Your task to perform on an android device: When is my next appointment? Image 0: 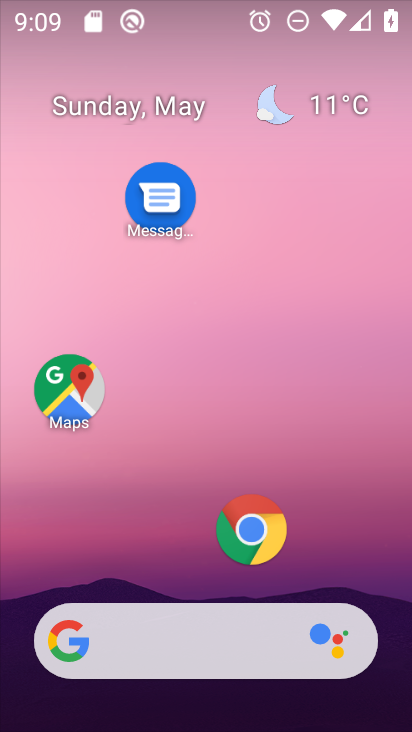
Step 0: press home button
Your task to perform on an android device: When is my next appointment? Image 1: 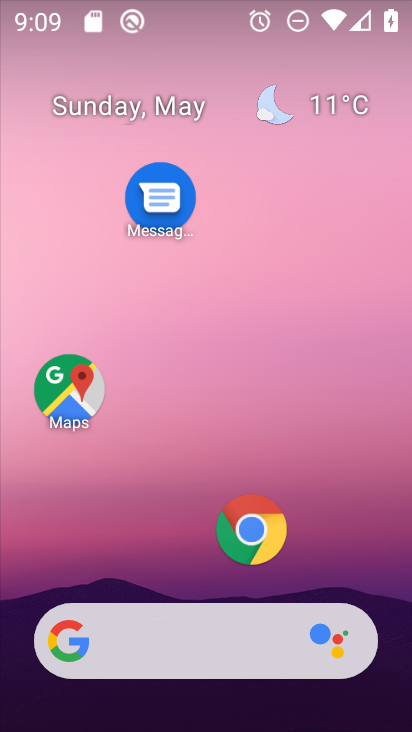
Step 1: drag from (195, 576) to (227, 87)
Your task to perform on an android device: When is my next appointment? Image 2: 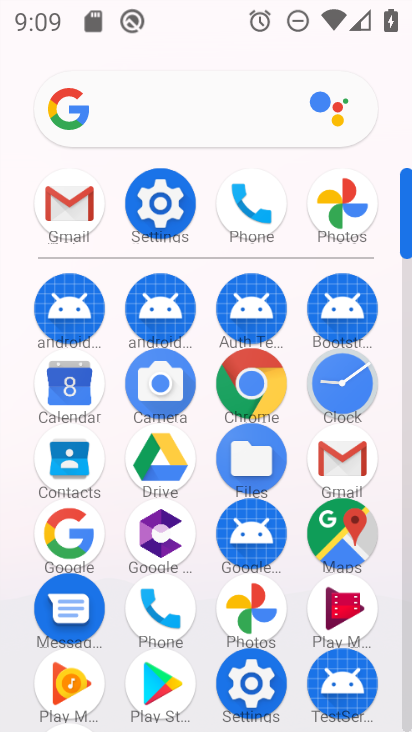
Step 2: click (73, 379)
Your task to perform on an android device: When is my next appointment? Image 3: 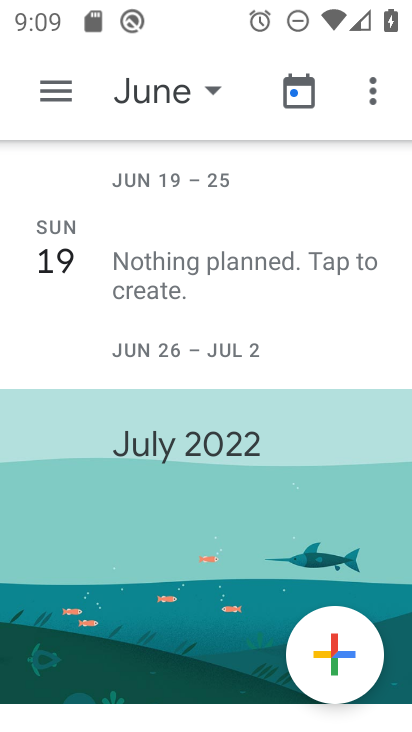
Step 3: click (45, 99)
Your task to perform on an android device: When is my next appointment? Image 4: 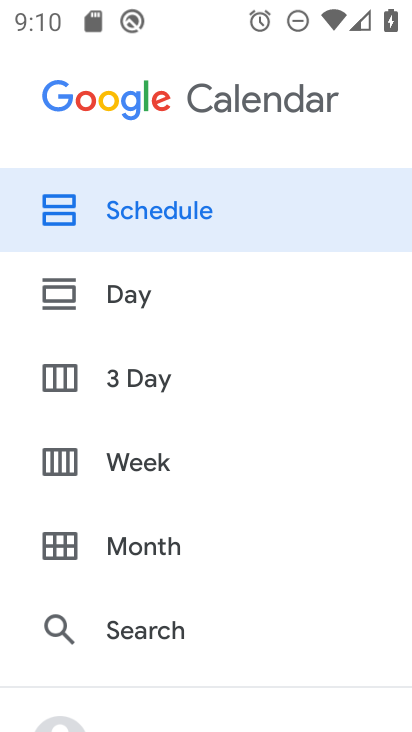
Step 4: click (94, 458)
Your task to perform on an android device: When is my next appointment? Image 5: 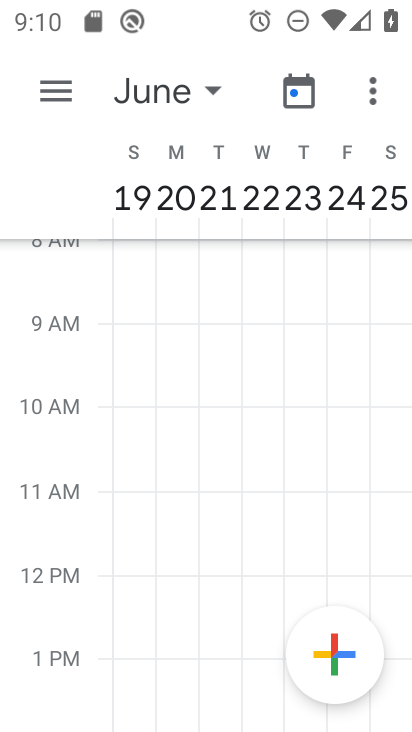
Step 5: drag from (143, 191) to (405, 184)
Your task to perform on an android device: When is my next appointment? Image 6: 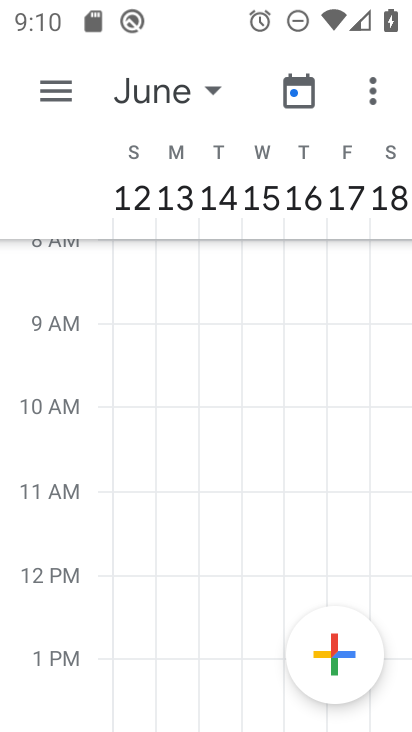
Step 6: drag from (127, 197) to (406, 228)
Your task to perform on an android device: When is my next appointment? Image 7: 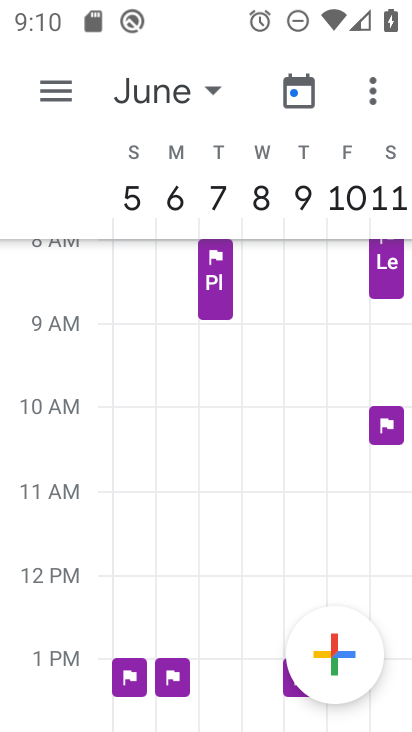
Step 7: drag from (125, 198) to (409, 213)
Your task to perform on an android device: When is my next appointment? Image 8: 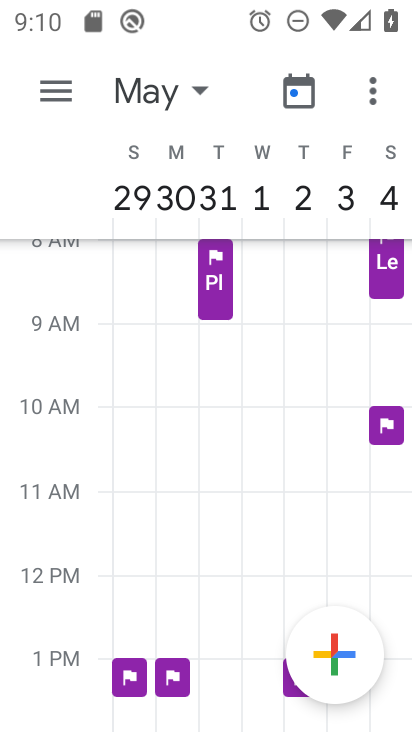
Step 8: drag from (128, 198) to (409, 198)
Your task to perform on an android device: When is my next appointment? Image 9: 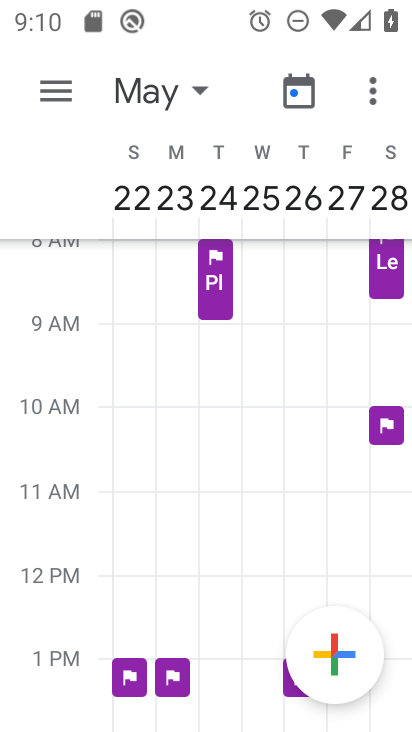
Step 9: drag from (131, 197) to (410, 198)
Your task to perform on an android device: When is my next appointment? Image 10: 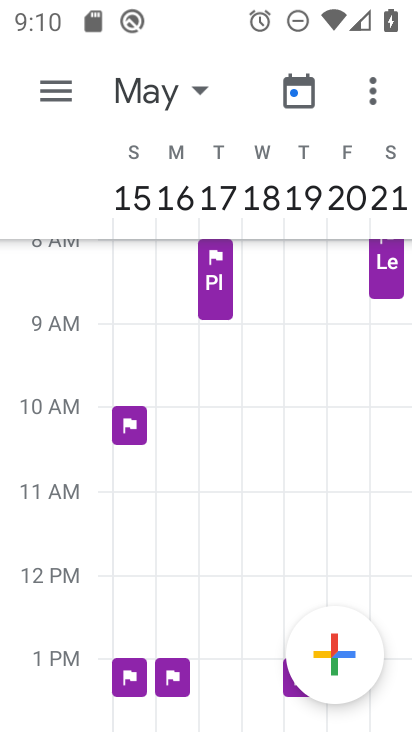
Step 10: drag from (133, 194) to (404, 209)
Your task to perform on an android device: When is my next appointment? Image 11: 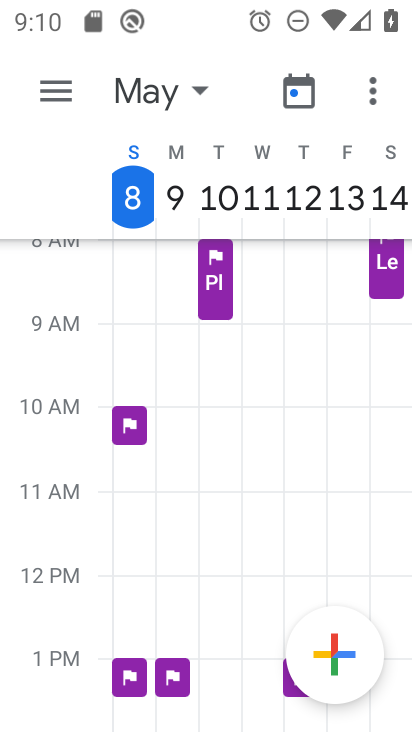
Step 11: click (129, 195)
Your task to perform on an android device: When is my next appointment? Image 12: 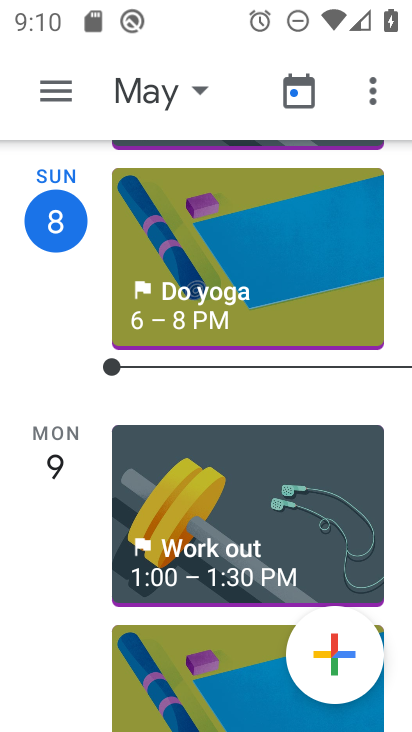
Step 12: task complete